Your task to perform on an android device: Open Chrome and go to the settings page Image 0: 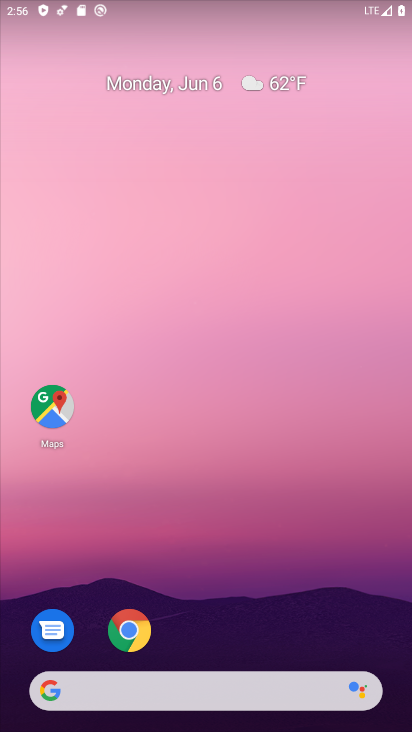
Step 0: click (138, 635)
Your task to perform on an android device: Open Chrome and go to the settings page Image 1: 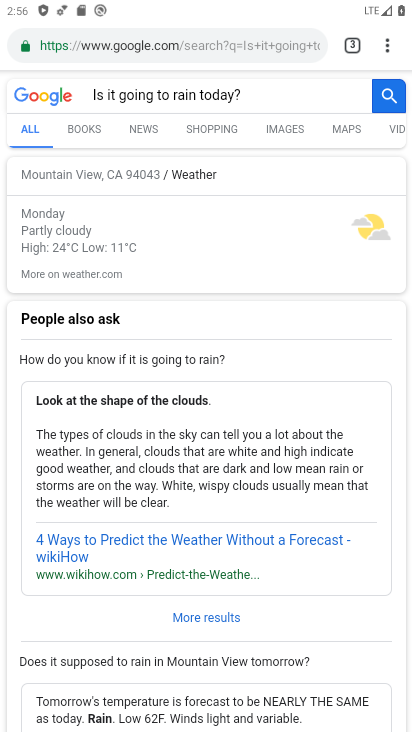
Step 1: task complete